Your task to perform on an android device: turn off wifi Image 0: 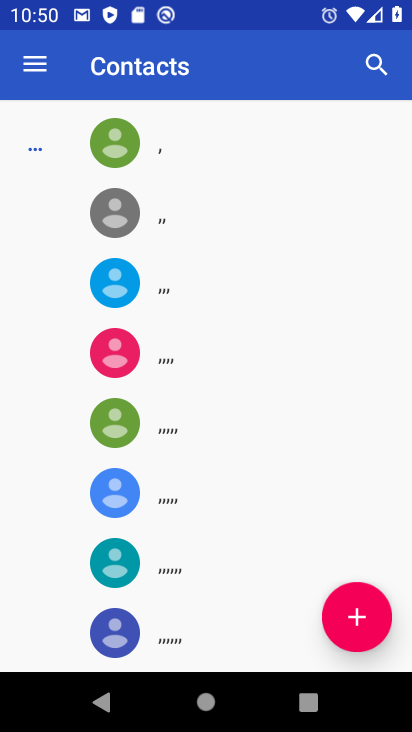
Step 0: press home button
Your task to perform on an android device: turn off wifi Image 1: 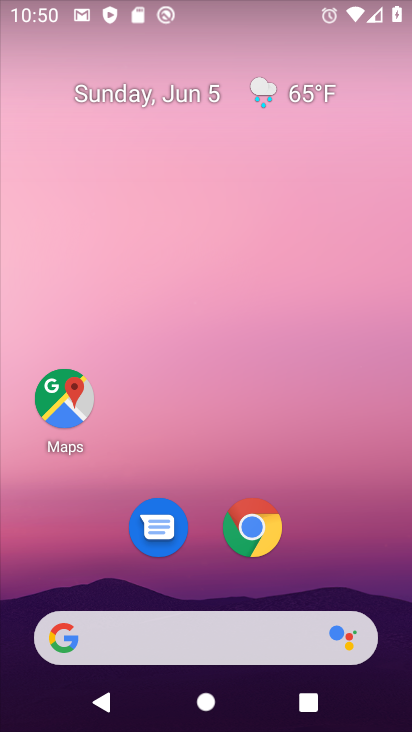
Step 1: drag from (265, 1) to (292, 499)
Your task to perform on an android device: turn off wifi Image 2: 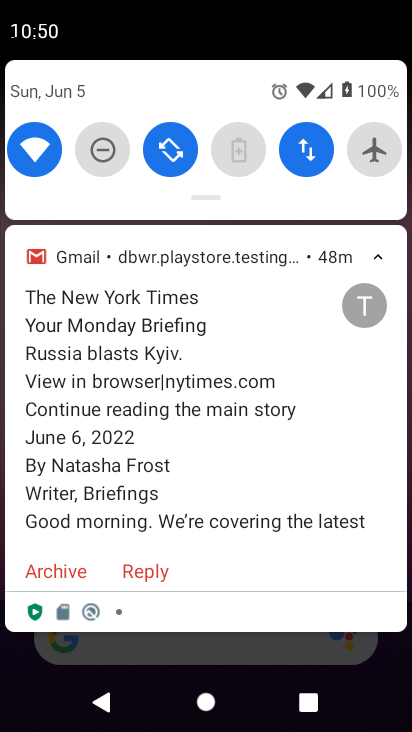
Step 2: click (37, 158)
Your task to perform on an android device: turn off wifi Image 3: 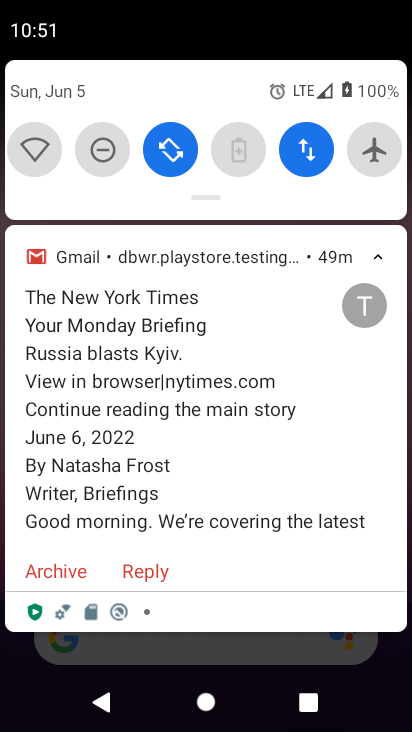
Step 3: task complete